Your task to perform on an android device: empty trash in google photos Image 0: 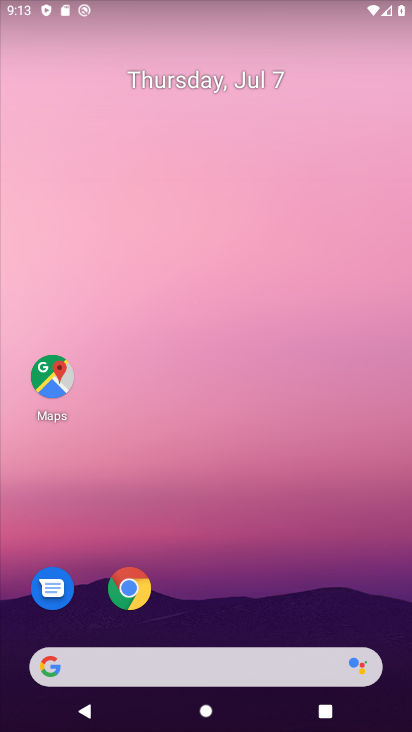
Step 0: drag from (315, 440) to (315, 340)
Your task to perform on an android device: empty trash in google photos Image 1: 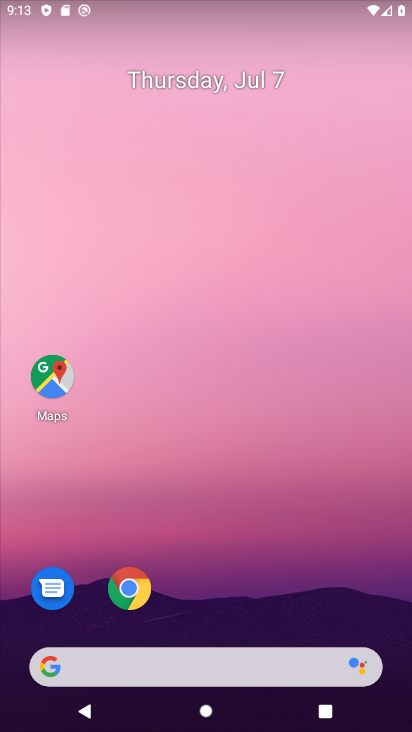
Step 1: drag from (286, 701) to (248, 113)
Your task to perform on an android device: empty trash in google photos Image 2: 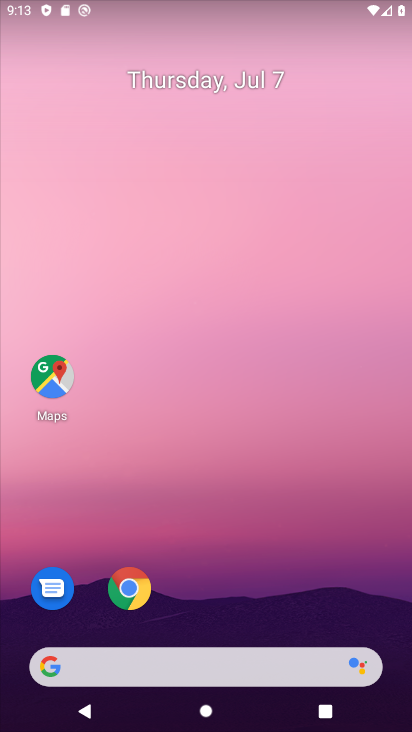
Step 2: drag from (298, 724) to (170, 198)
Your task to perform on an android device: empty trash in google photos Image 3: 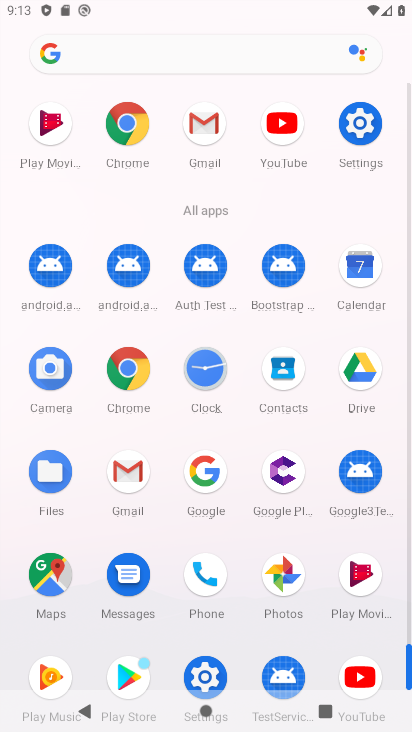
Step 3: click (208, 484)
Your task to perform on an android device: empty trash in google photos Image 4: 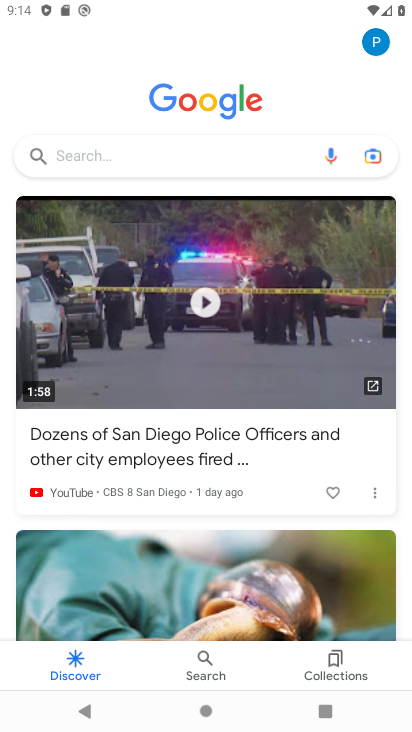
Step 4: press back button
Your task to perform on an android device: empty trash in google photos Image 5: 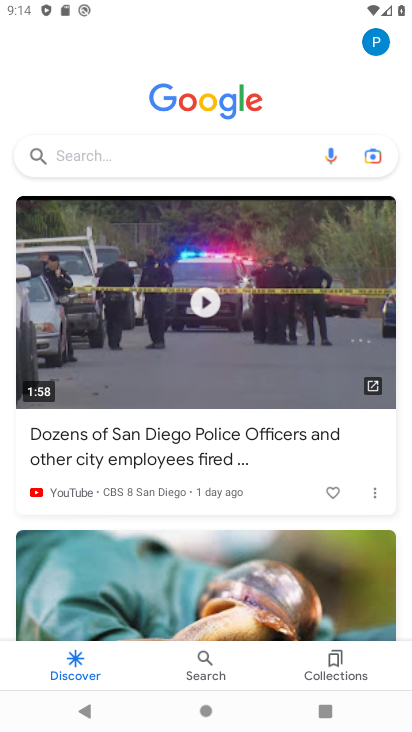
Step 5: press back button
Your task to perform on an android device: empty trash in google photos Image 6: 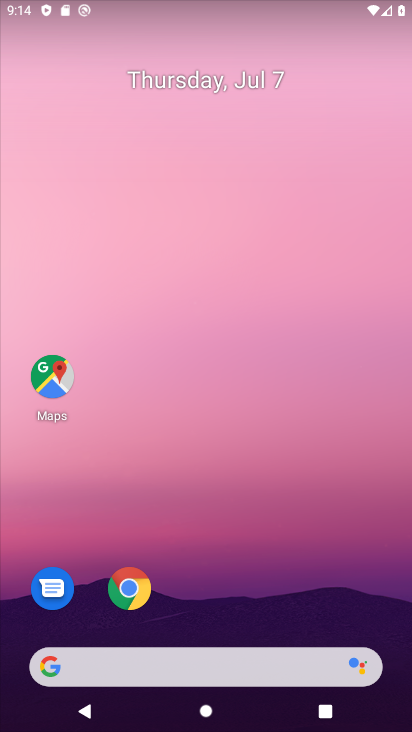
Step 6: drag from (287, 530) to (259, 12)
Your task to perform on an android device: empty trash in google photos Image 7: 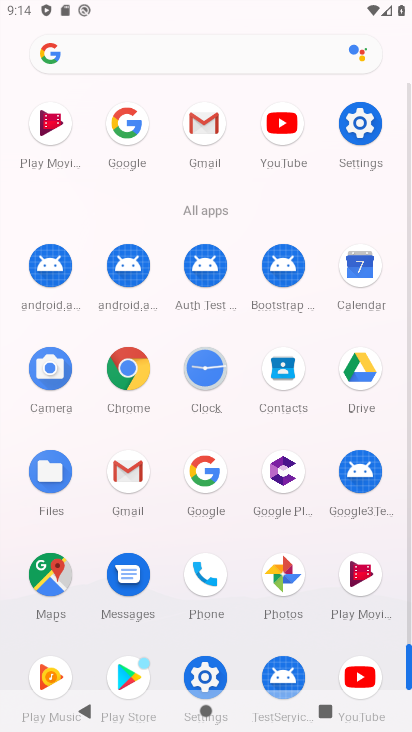
Step 7: click (274, 557)
Your task to perform on an android device: empty trash in google photos Image 8: 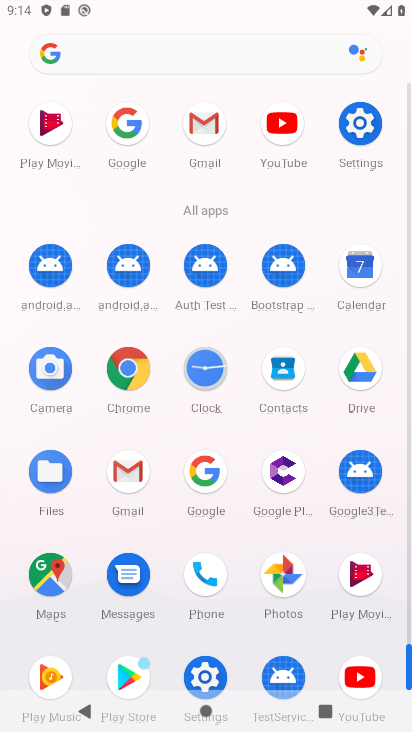
Step 8: click (292, 573)
Your task to perform on an android device: empty trash in google photos Image 9: 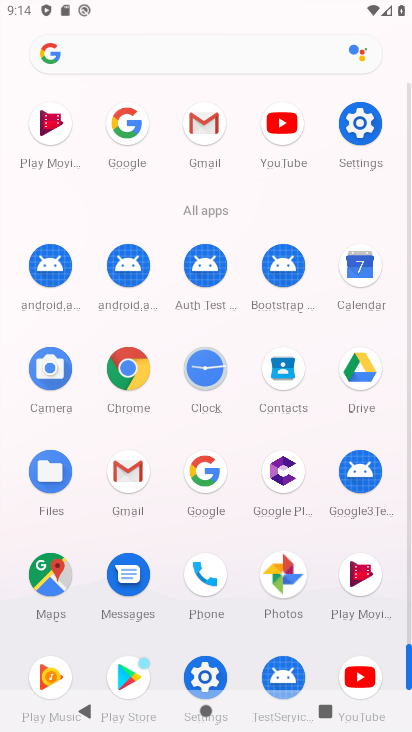
Step 9: click (291, 570)
Your task to perform on an android device: empty trash in google photos Image 10: 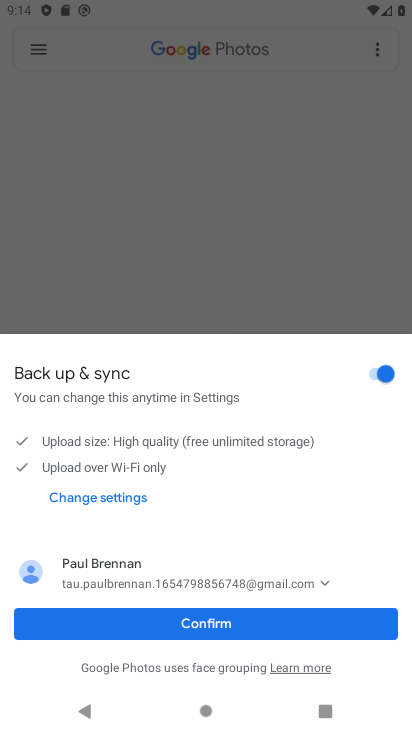
Step 10: click (225, 200)
Your task to perform on an android device: empty trash in google photos Image 11: 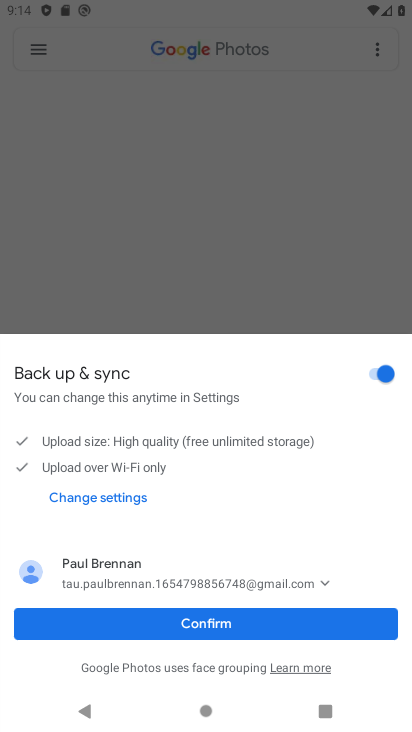
Step 11: click (226, 201)
Your task to perform on an android device: empty trash in google photos Image 12: 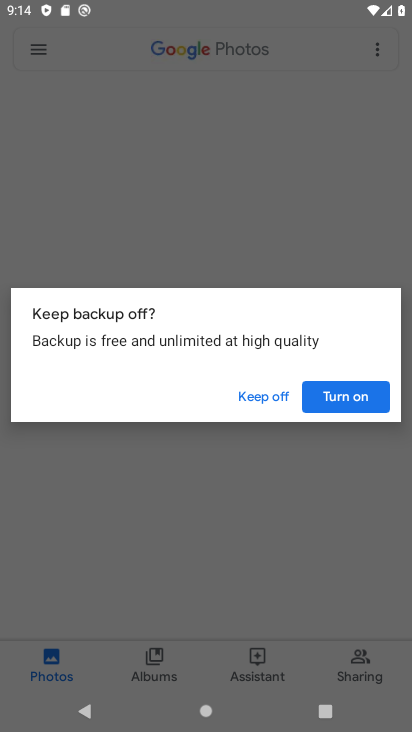
Step 12: click (226, 201)
Your task to perform on an android device: empty trash in google photos Image 13: 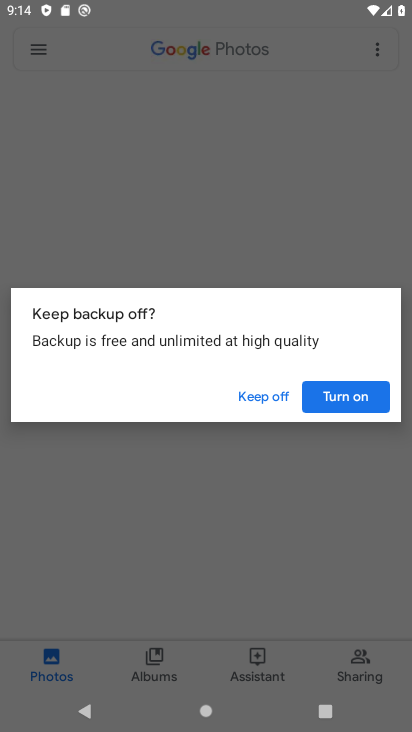
Step 13: click (226, 201)
Your task to perform on an android device: empty trash in google photos Image 14: 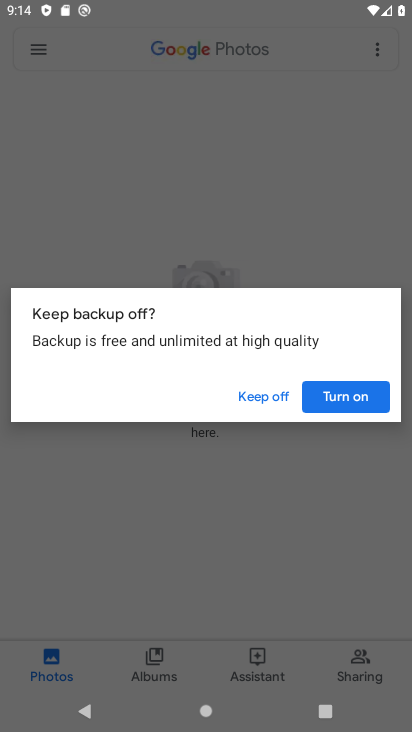
Step 14: click (152, 147)
Your task to perform on an android device: empty trash in google photos Image 15: 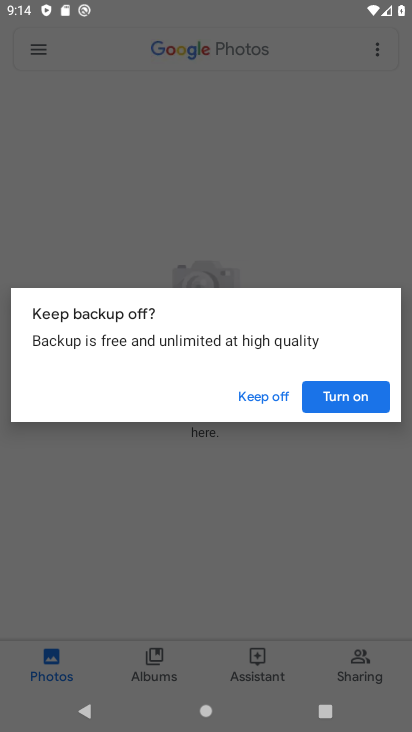
Step 15: click (155, 156)
Your task to perform on an android device: empty trash in google photos Image 16: 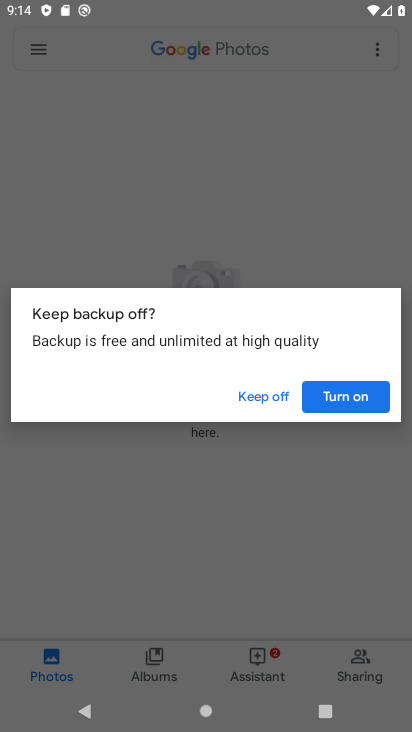
Step 16: click (258, 388)
Your task to perform on an android device: empty trash in google photos Image 17: 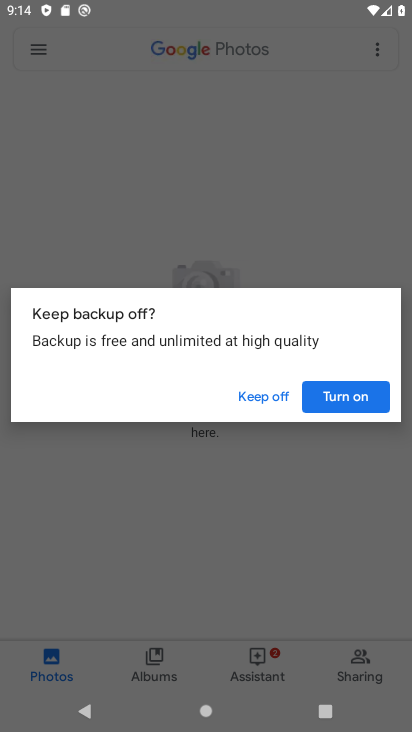
Step 17: click (245, 379)
Your task to perform on an android device: empty trash in google photos Image 18: 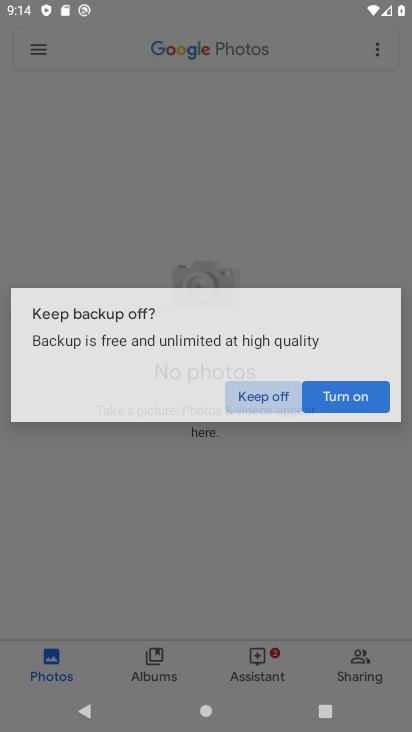
Step 18: click (202, 370)
Your task to perform on an android device: empty trash in google photos Image 19: 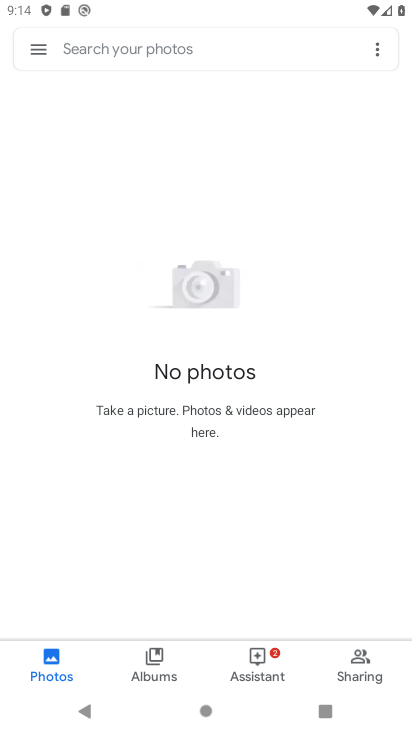
Step 19: click (34, 54)
Your task to perform on an android device: empty trash in google photos Image 20: 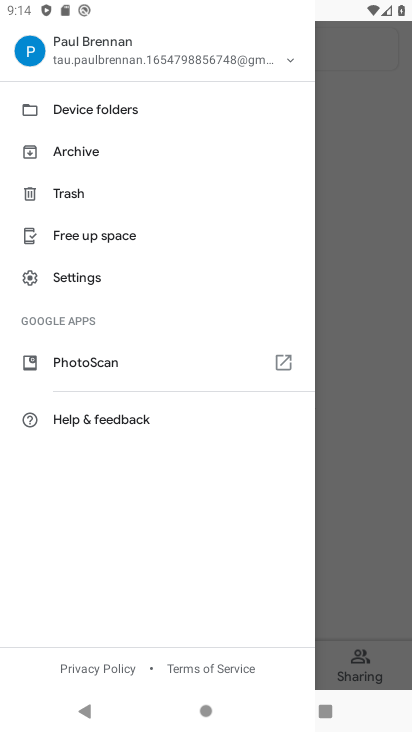
Step 20: click (69, 269)
Your task to perform on an android device: empty trash in google photos Image 21: 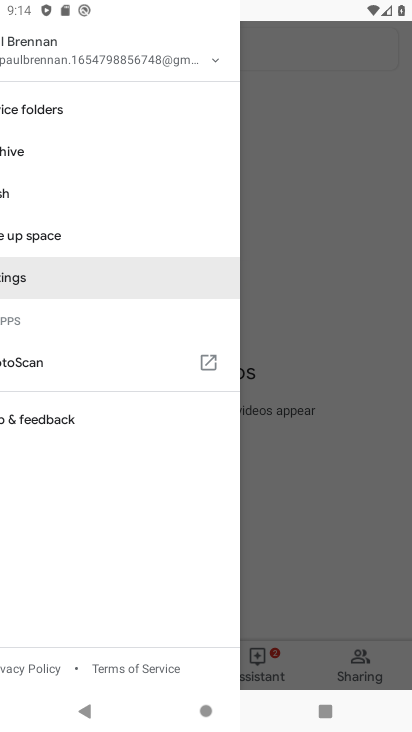
Step 21: click (60, 267)
Your task to perform on an android device: empty trash in google photos Image 22: 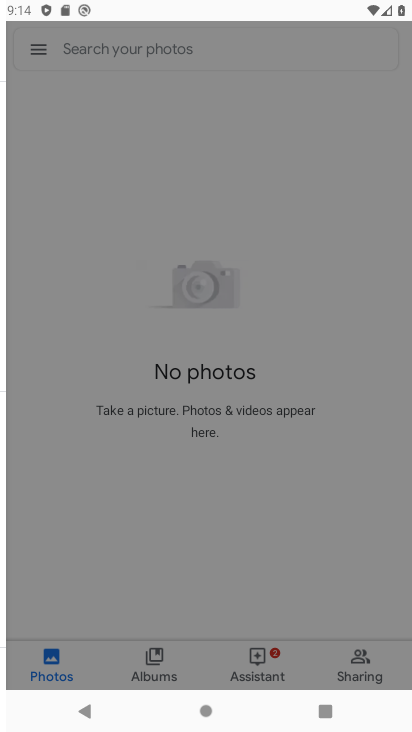
Step 22: click (57, 272)
Your task to perform on an android device: empty trash in google photos Image 23: 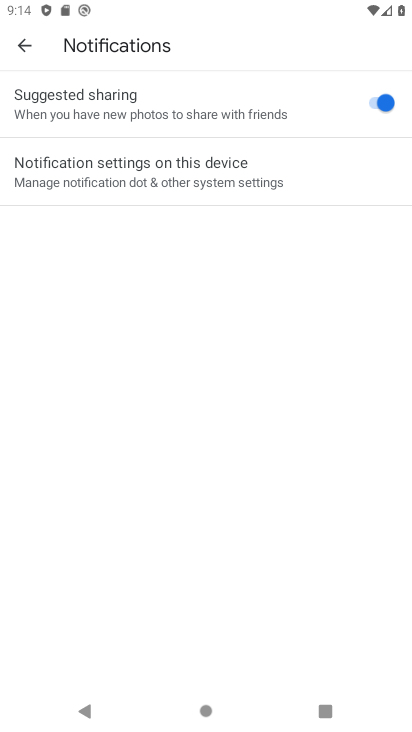
Step 23: click (33, 40)
Your task to perform on an android device: empty trash in google photos Image 24: 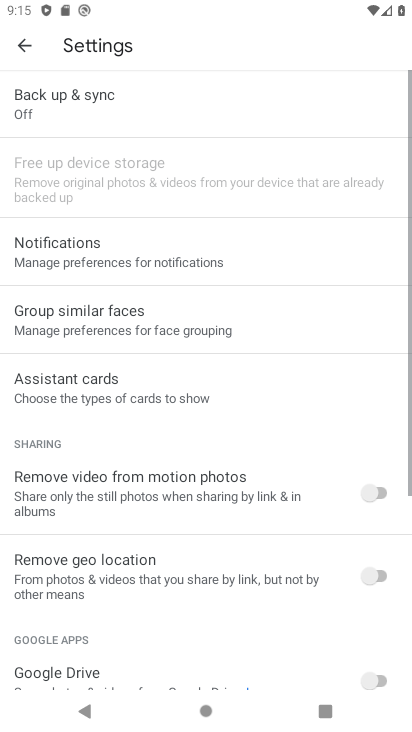
Step 24: click (26, 46)
Your task to perform on an android device: empty trash in google photos Image 25: 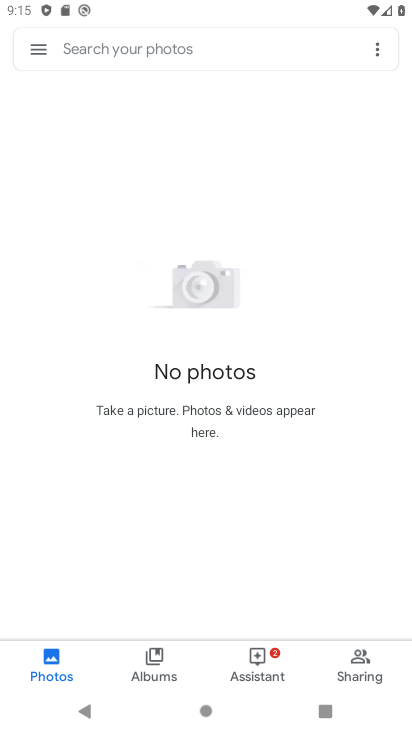
Step 25: click (24, 32)
Your task to perform on an android device: empty trash in google photos Image 26: 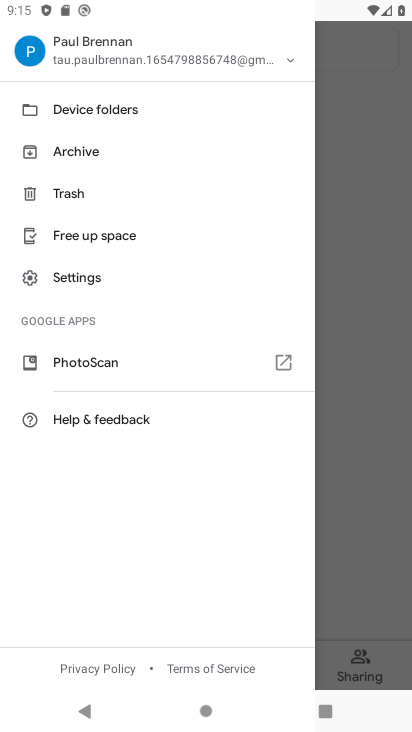
Step 26: click (70, 192)
Your task to perform on an android device: empty trash in google photos Image 27: 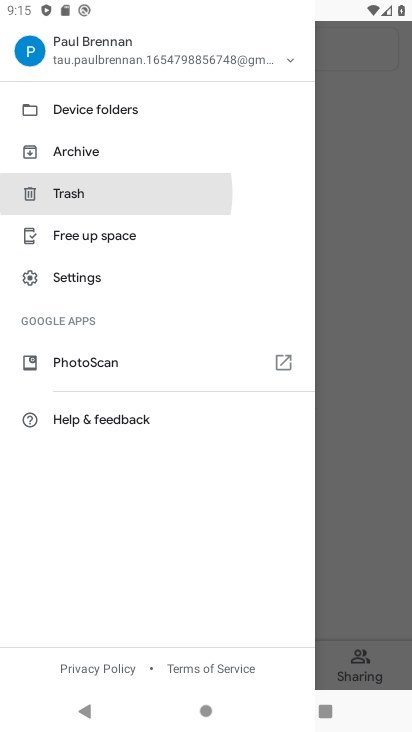
Step 27: click (72, 189)
Your task to perform on an android device: empty trash in google photos Image 28: 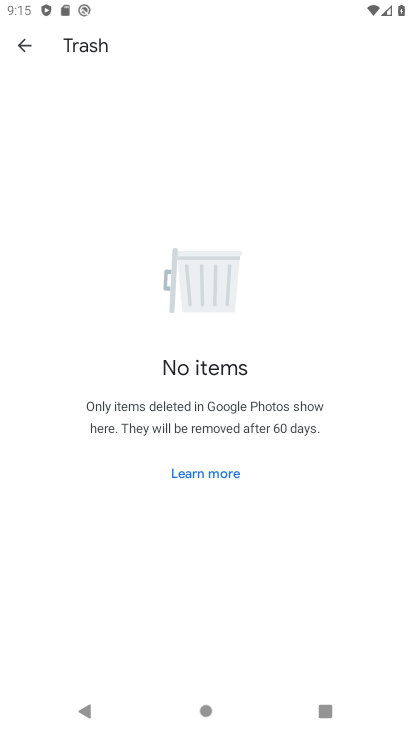
Step 28: task complete